Your task to perform on an android device: Search for Italian restaurants on Maps Image 0: 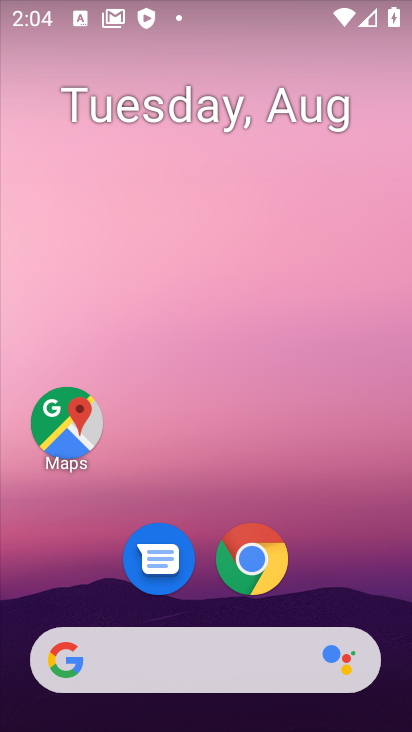
Step 0: click (70, 441)
Your task to perform on an android device: Search for Italian restaurants on Maps Image 1: 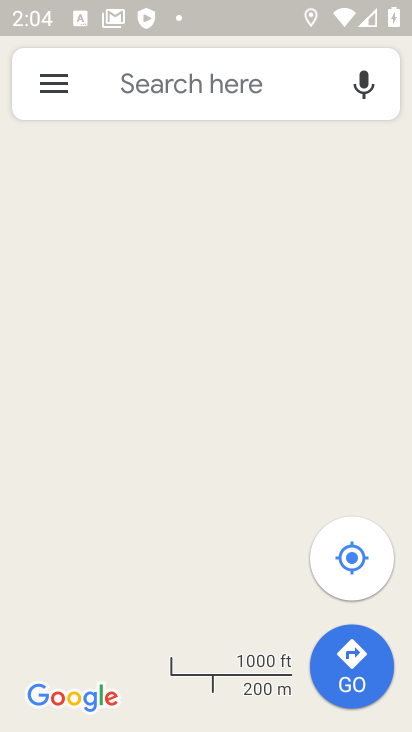
Step 1: click (244, 83)
Your task to perform on an android device: Search for Italian restaurants on Maps Image 2: 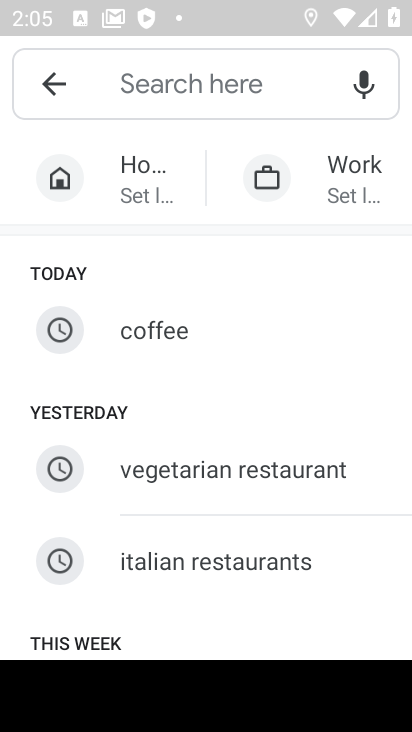
Step 2: click (178, 560)
Your task to perform on an android device: Search for Italian restaurants on Maps Image 3: 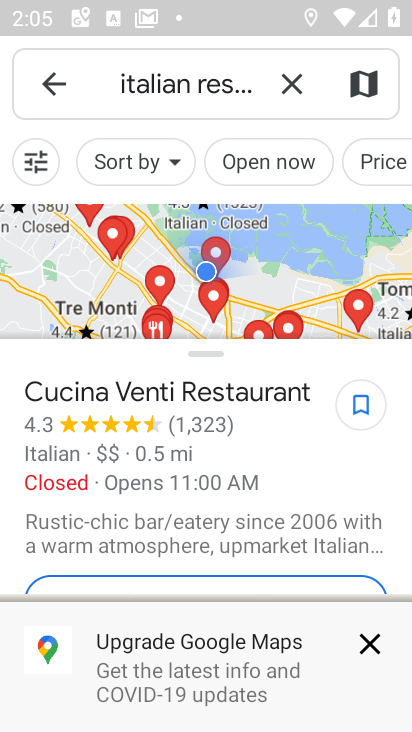
Step 3: task complete